Your task to perform on an android device: Open ESPN.com Image 0: 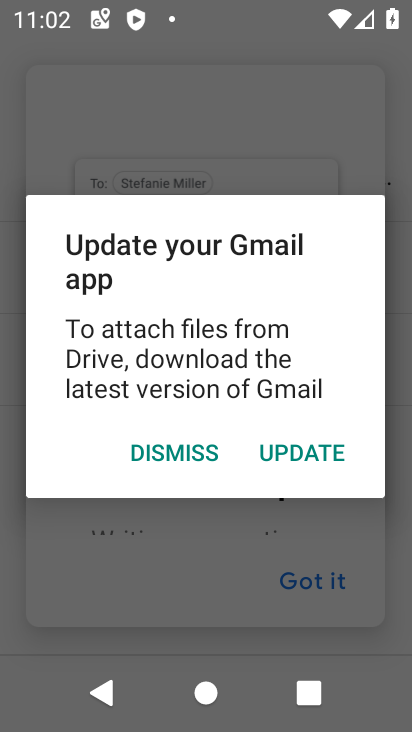
Step 0: press home button
Your task to perform on an android device: Open ESPN.com Image 1: 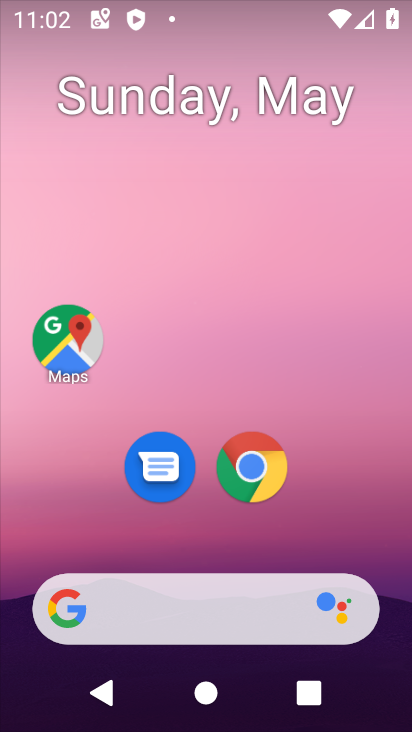
Step 1: click (253, 472)
Your task to perform on an android device: Open ESPN.com Image 2: 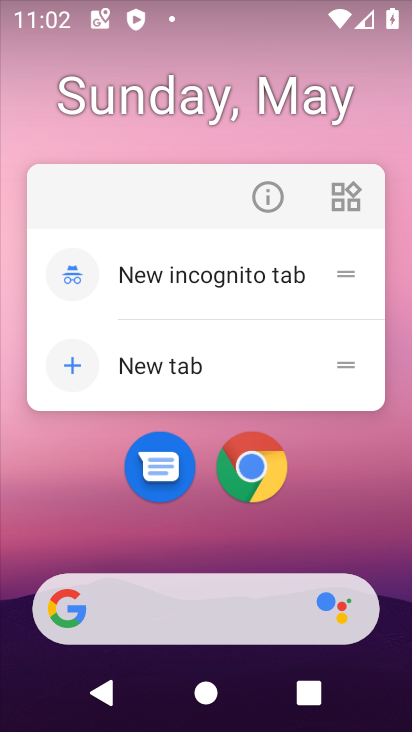
Step 2: click (252, 470)
Your task to perform on an android device: Open ESPN.com Image 3: 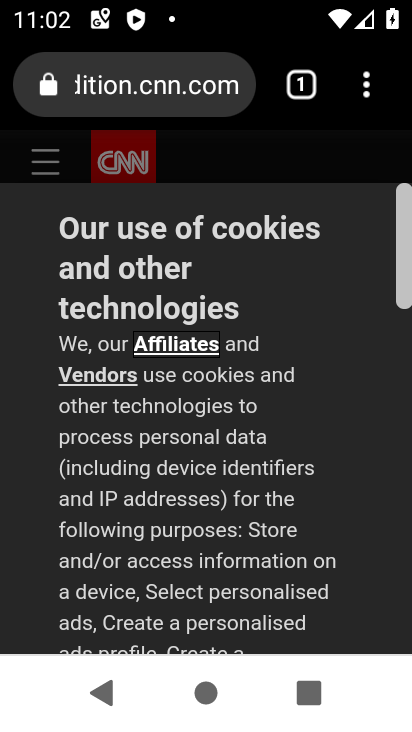
Step 3: click (135, 88)
Your task to perform on an android device: Open ESPN.com Image 4: 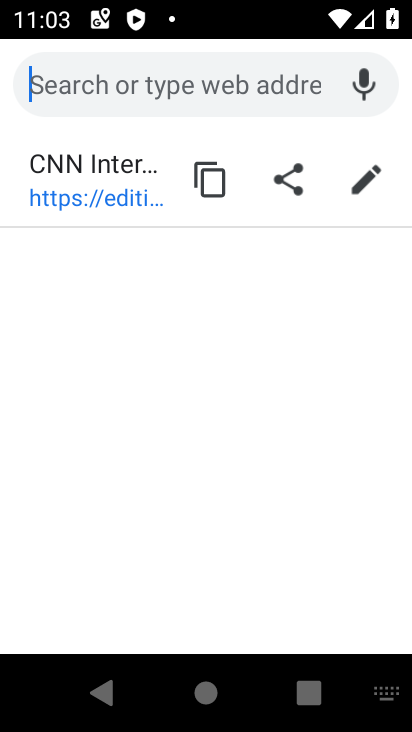
Step 4: type "espn.com"
Your task to perform on an android device: Open ESPN.com Image 5: 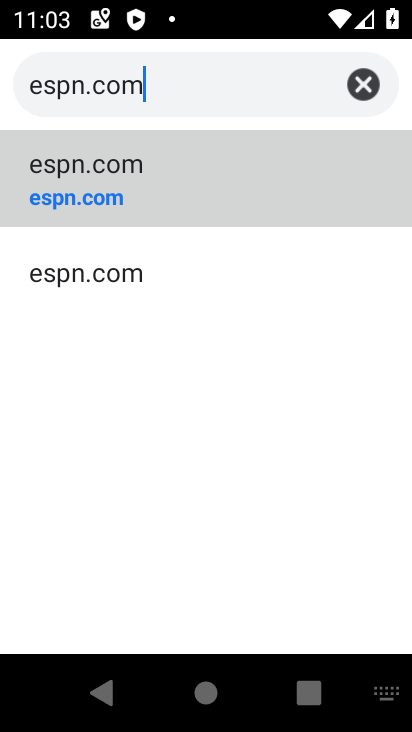
Step 5: click (79, 182)
Your task to perform on an android device: Open ESPN.com Image 6: 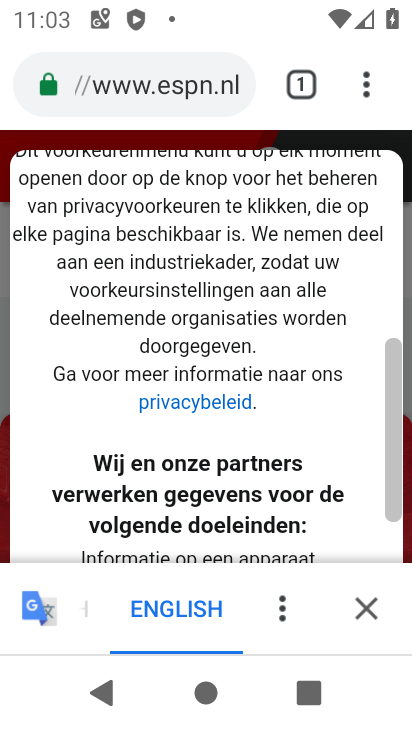
Step 6: task complete